Your task to perform on an android device: star an email in the gmail app Image 0: 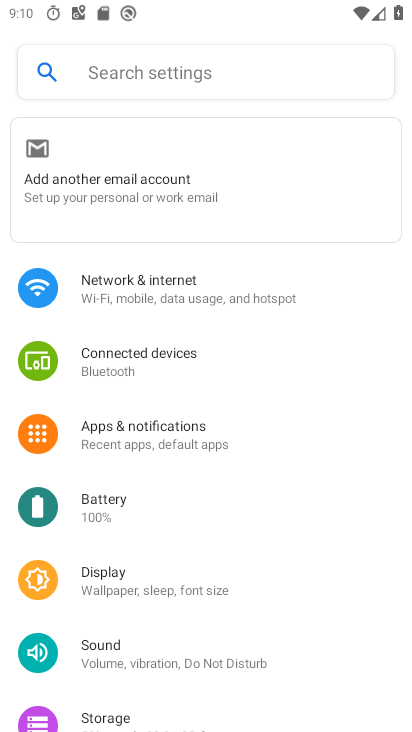
Step 0: press home button
Your task to perform on an android device: star an email in the gmail app Image 1: 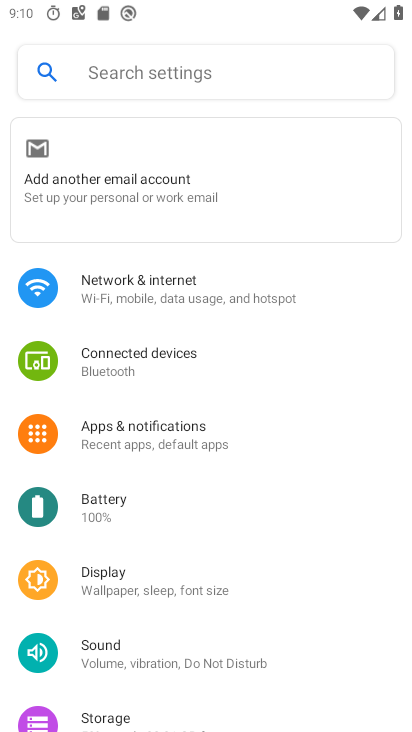
Step 1: press home button
Your task to perform on an android device: star an email in the gmail app Image 2: 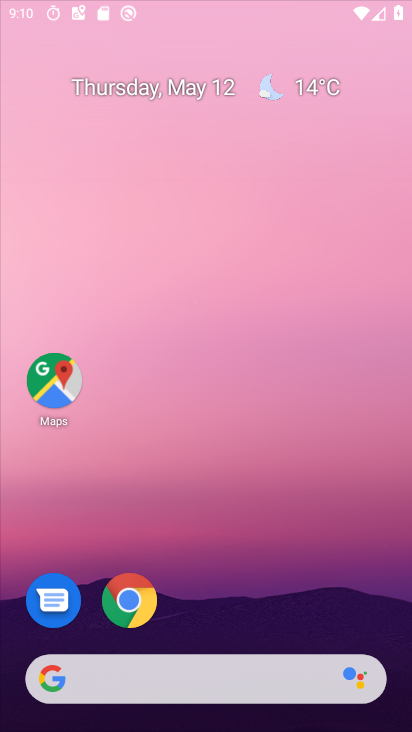
Step 2: press home button
Your task to perform on an android device: star an email in the gmail app Image 3: 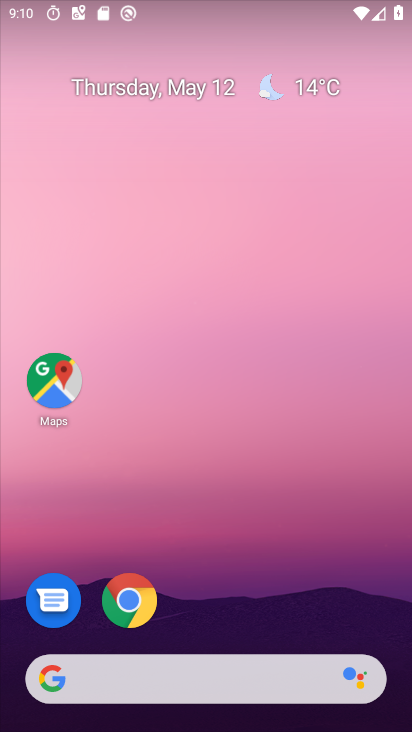
Step 3: drag from (289, 597) to (155, 89)
Your task to perform on an android device: star an email in the gmail app Image 4: 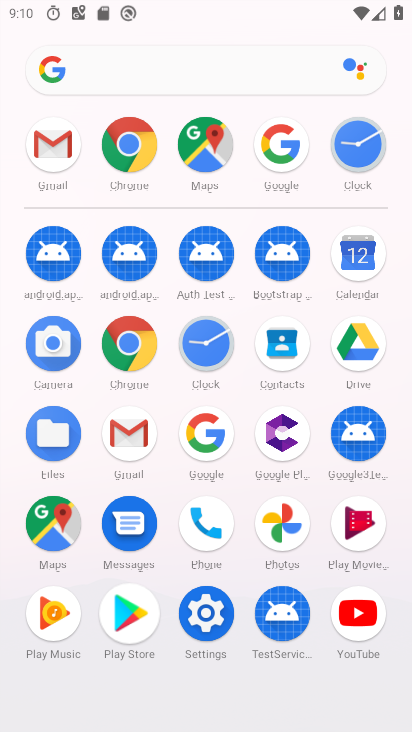
Step 4: click (126, 435)
Your task to perform on an android device: star an email in the gmail app Image 5: 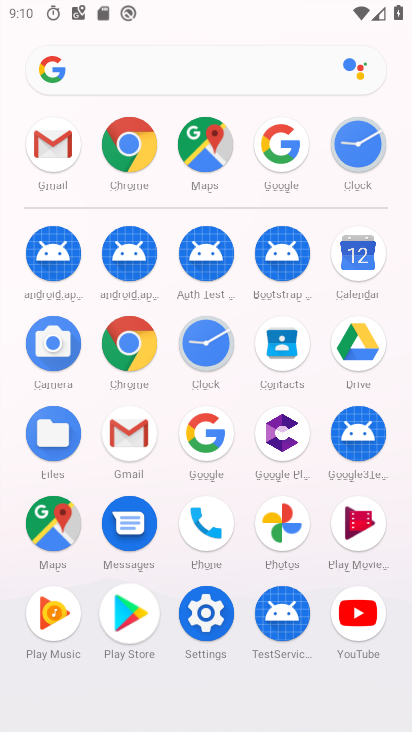
Step 5: click (125, 433)
Your task to perform on an android device: star an email in the gmail app Image 6: 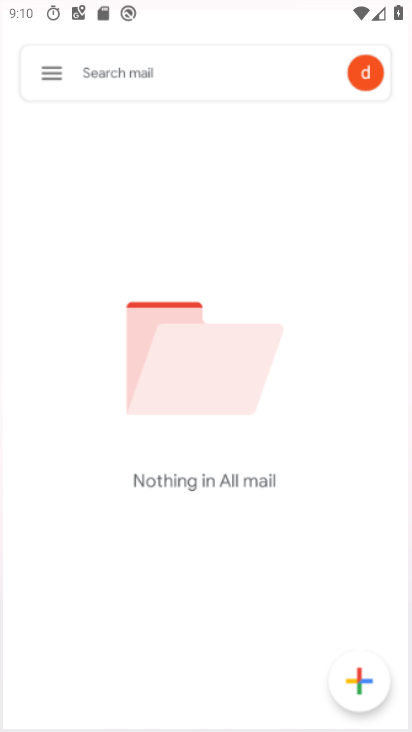
Step 6: click (126, 432)
Your task to perform on an android device: star an email in the gmail app Image 7: 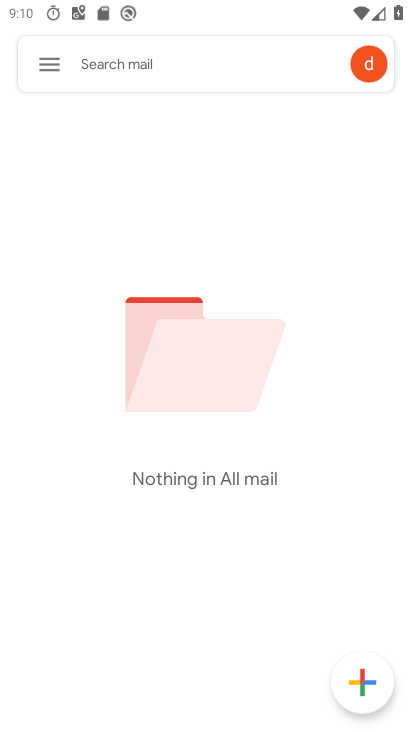
Step 7: click (60, 62)
Your task to perform on an android device: star an email in the gmail app Image 8: 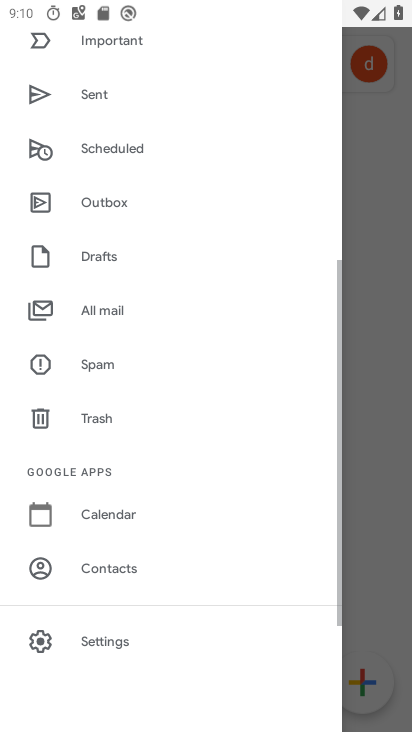
Step 8: click (116, 298)
Your task to perform on an android device: star an email in the gmail app Image 9: 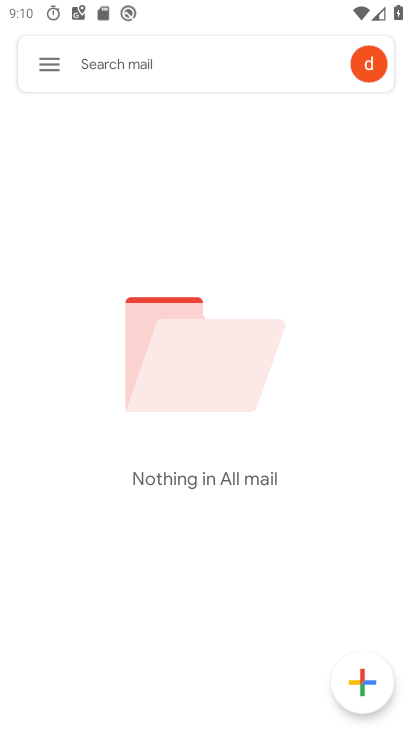
Step 9: task complete